Your task to perform on an android device: change the upload size in google photos Image 0: 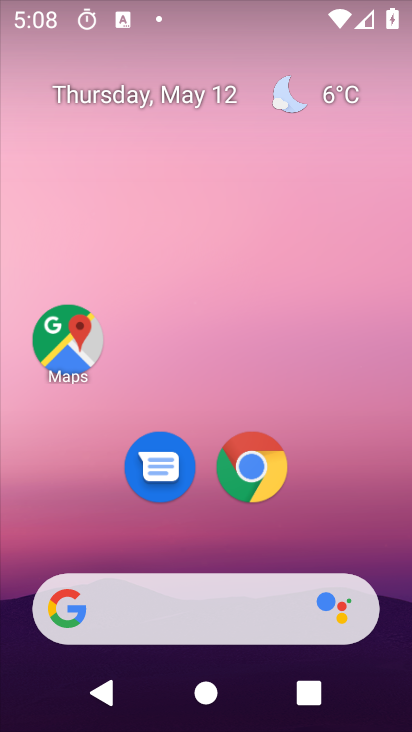
Step 0: press home button
Your task to perform on an android device: change the upload size in google photos Image 1: 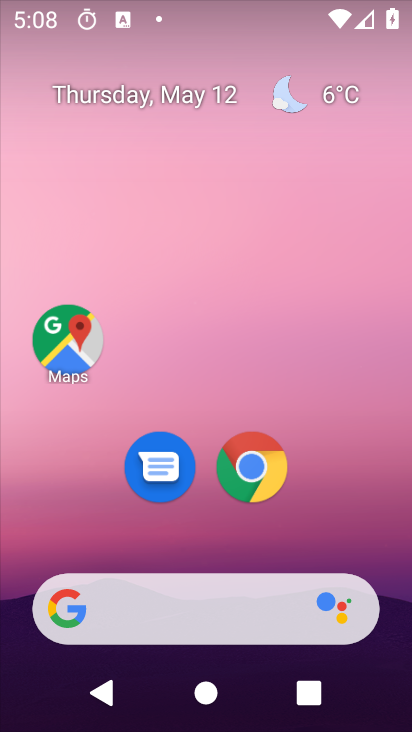
Step 1: drag from (340, 629) to (310, 4)
Your task to perform on an android device: change the upload size in google photos Image 2: 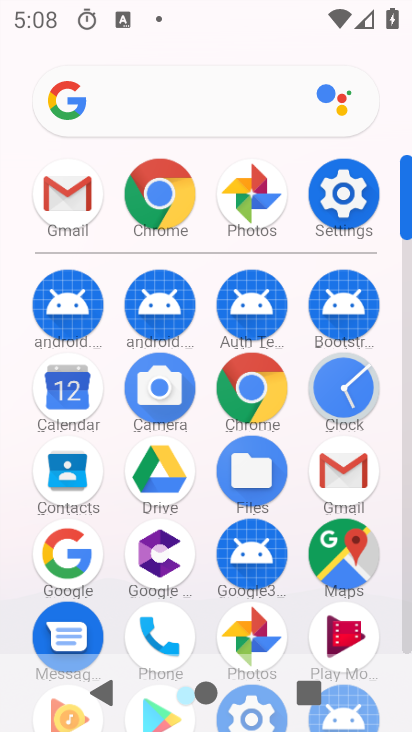
Step 2: click (257, 630)
Your task to perform on an android device: change the upload size in google photos Image 3: 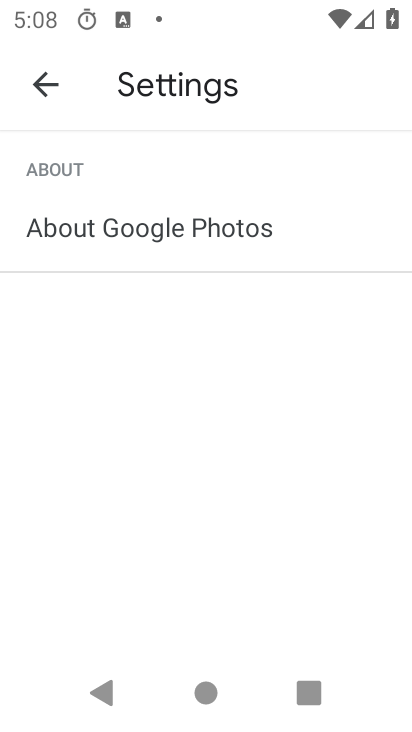
Step 3: press back button
Your task to perform on an android device: change the upload size in google photos Image 4: 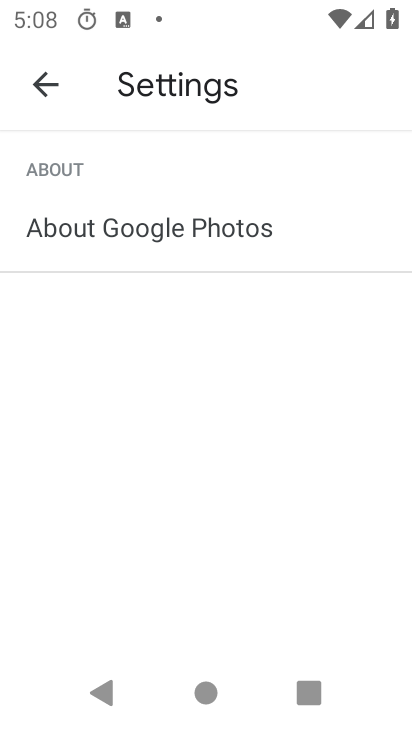
Step 4: press back button
Your task to perform on an android device: change the upload size in google photos Image 5: 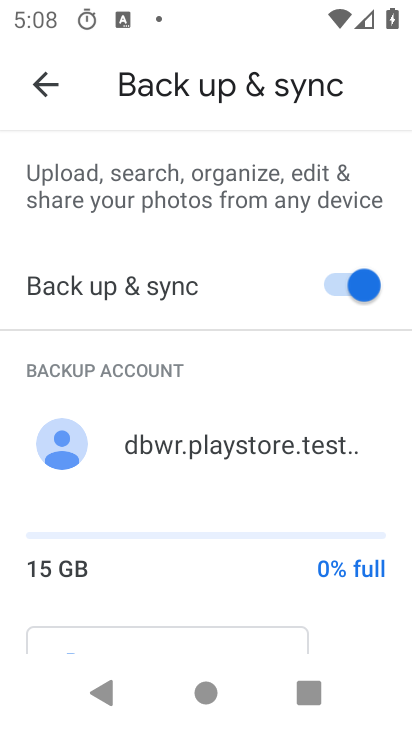
Step 5: drag from (213, 551) to (268, 87)
Your task to perform on an android device: change the upload size in google photos Image 6: 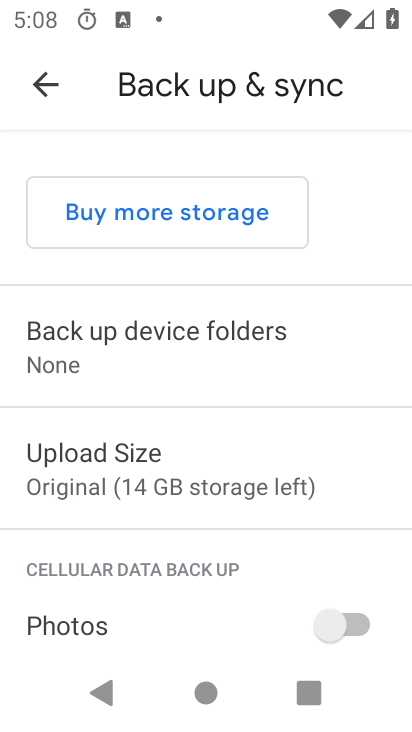
Step 6: click (202, 464)
Your task to perform on an android device: change the upload size in google photos Image 7: 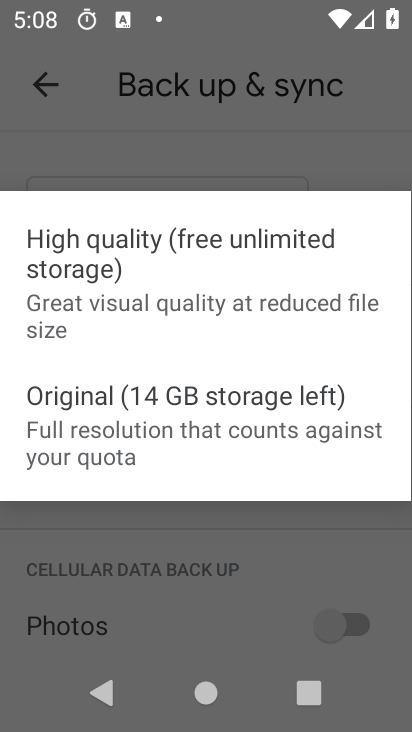
Step 7: click (202, 290)
Your task to perform on an android device: change the upload size in google photos Image 8: 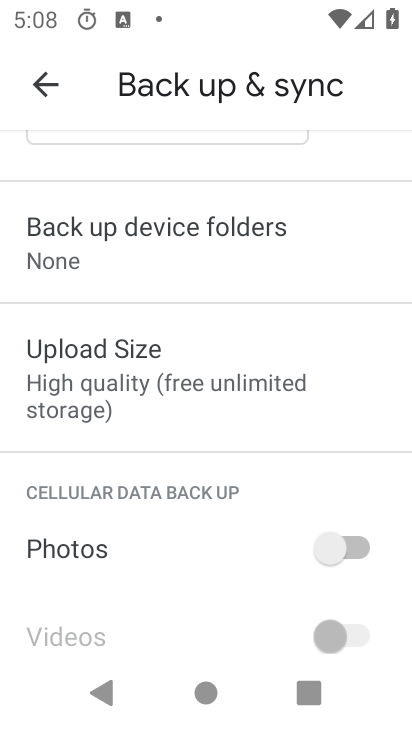
Step 8: task complete